Your task to perform on an android device: see tabs open on other devices in the chrome app Image 0: 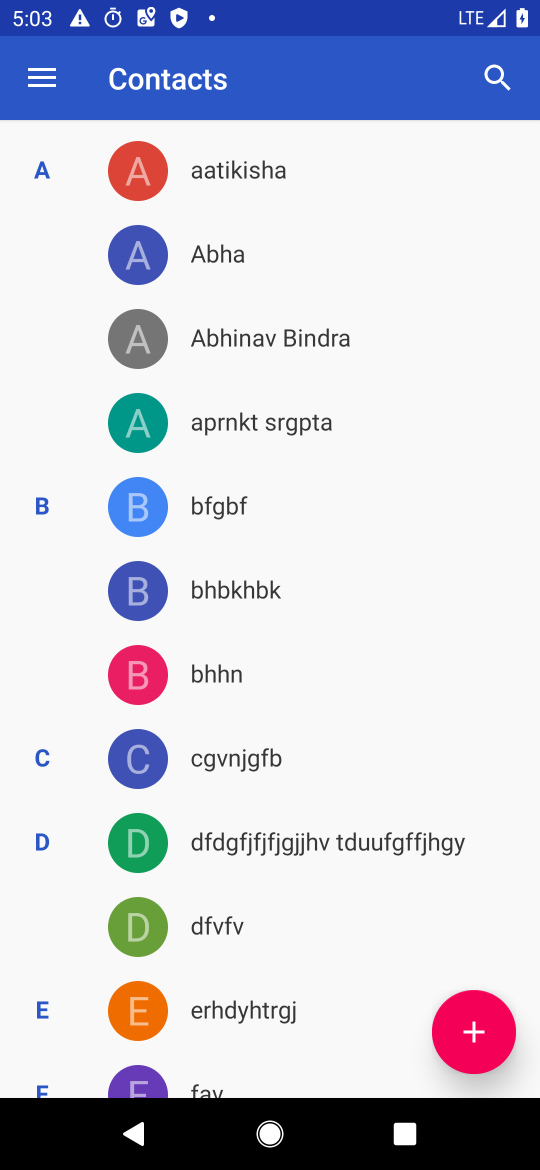
Step 0: press home button
Your task to perform on an android device: see tabs open on other devices in the chrome app Image 1: 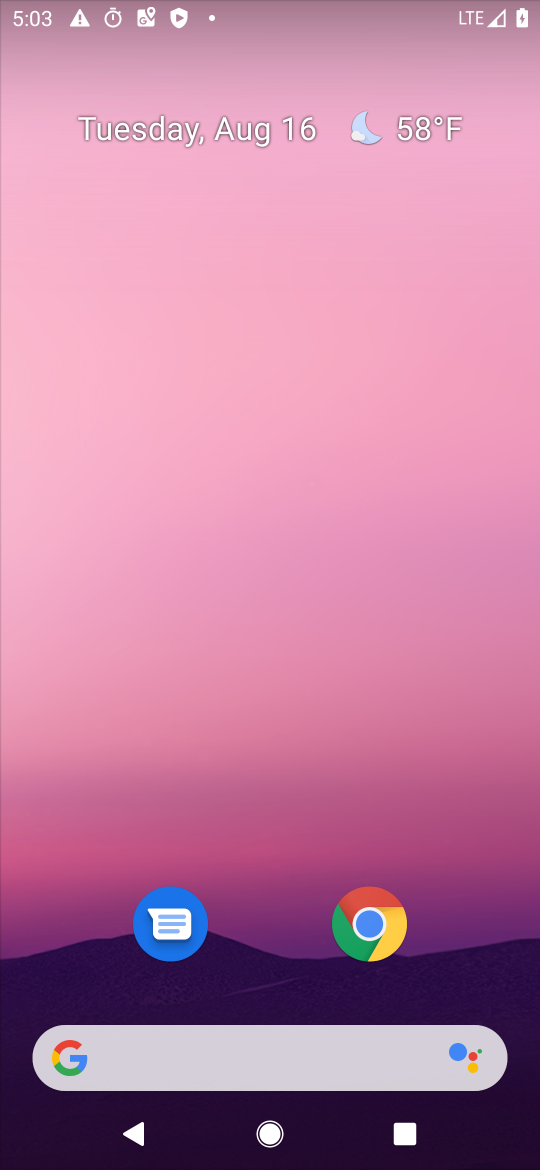
Step 1: click (374, 930)
Your task to perform on an android device: see tabs open on other devices in the chrome app Image 2: 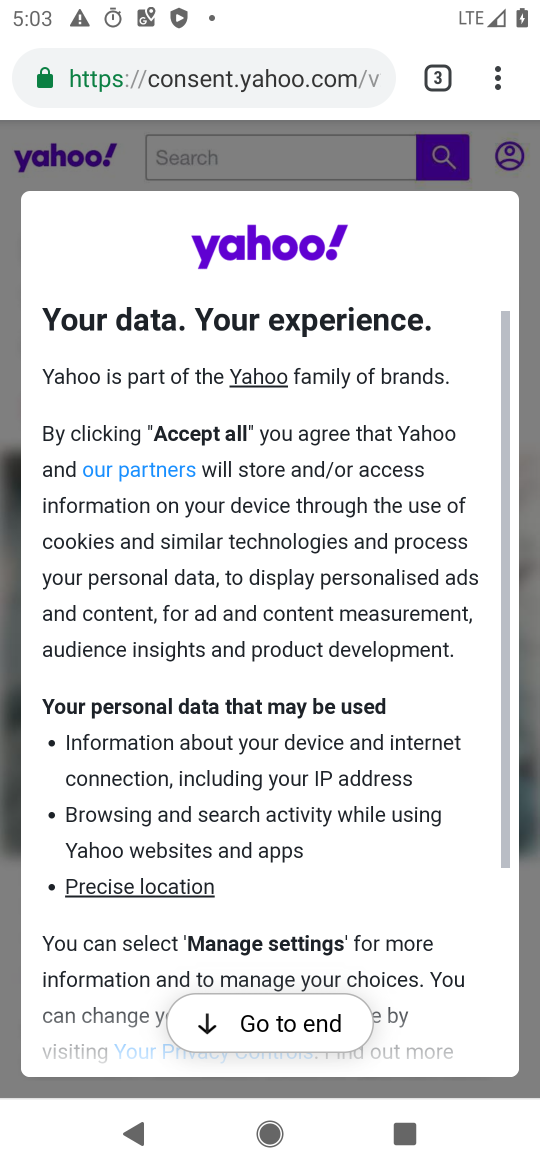
Step 2: click (493, 68)
Your task to perform on an android device: see tabs open on other devices in the chrome app Image 3: 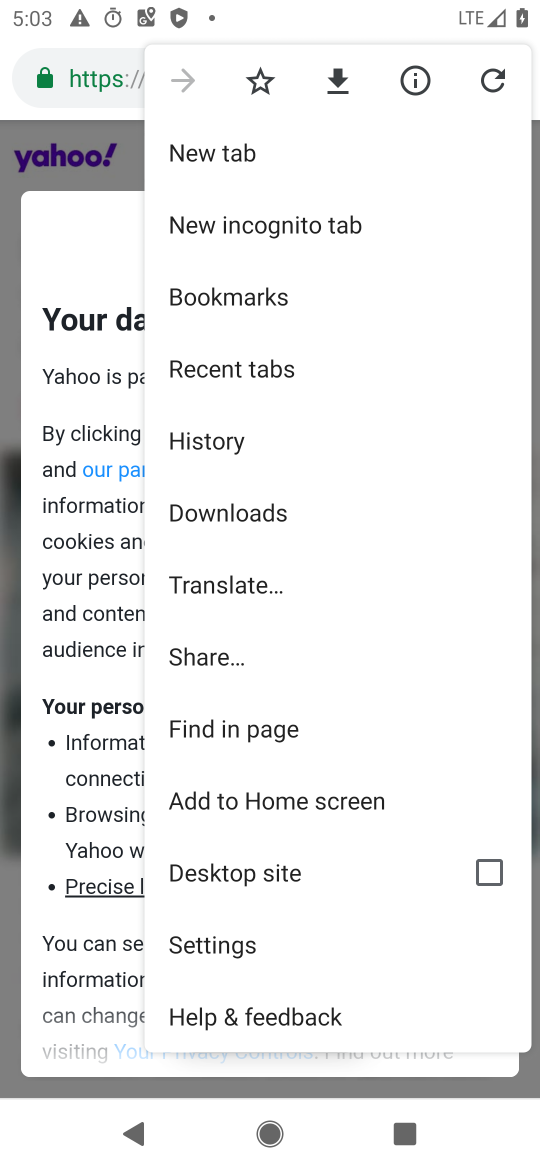
Step 3: click (341, 378)
Your task to perform on an android device: see tabs open on other devices in the chrome app Image 4: 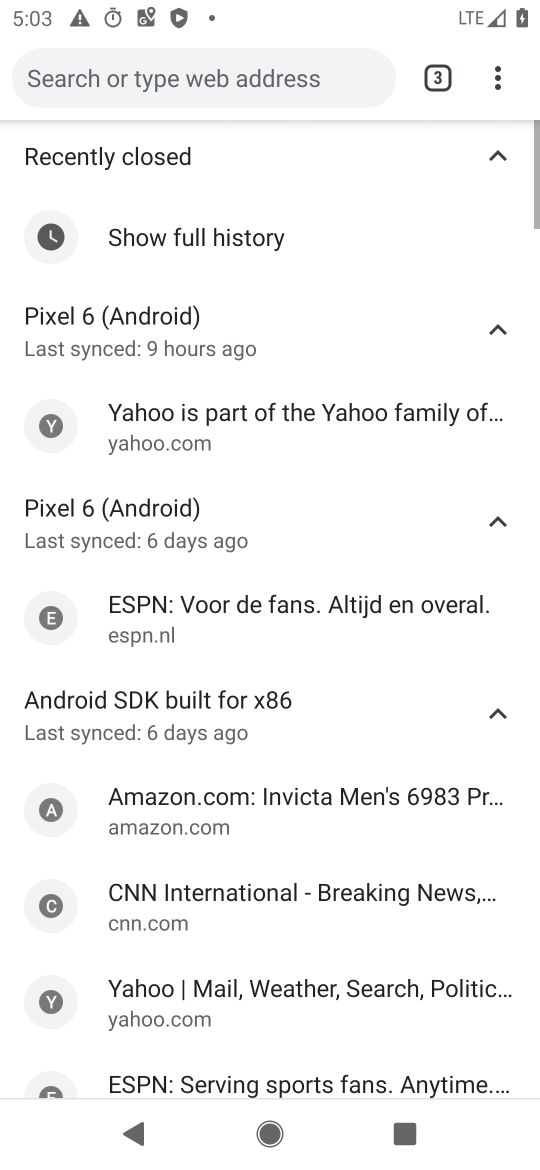
Step 4: task complete